Your task to perform on an android device: Open privacy settings Image 0: 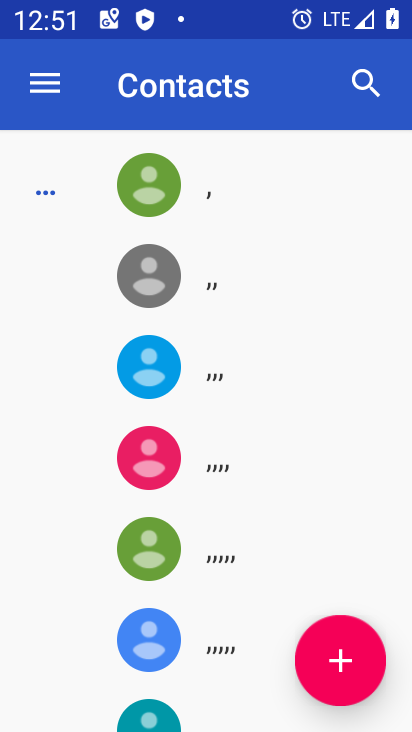
Step 0: press home button
Your task to perform on an android device: Open privacy settings Image 1: 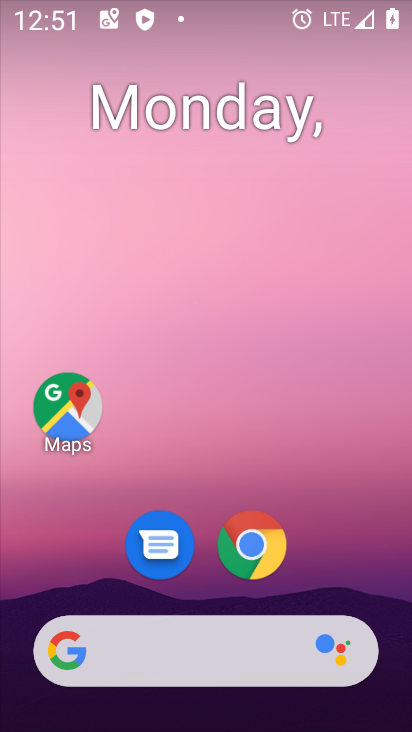
Step 1: drag from (370, 560) to (384, 219)
Your task to perform on an android device: Open privacy settings Image 2: 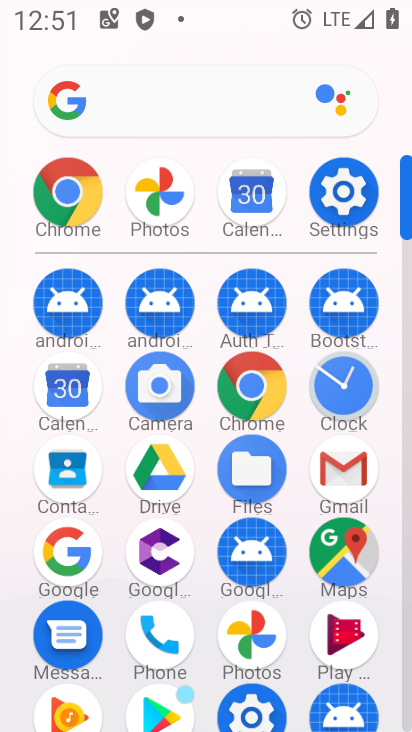
Step 2: click (358, 215)
Your task to perform on an android device: Open privacy settings Image 3: 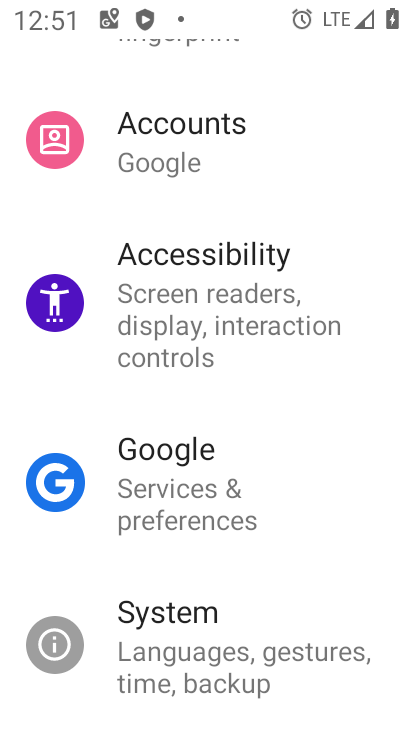
Step 3: drag from (343, 495) to (344, 370)
Your task to perform on an android device: Open privacy settings Image 4: 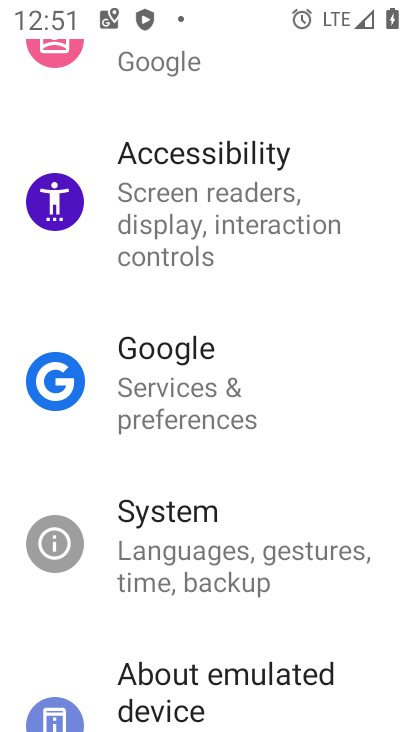
Step 4: drag from (329, 533) to (326, 391)
Your task to perform on an android device: Open privacy settings Image 5: 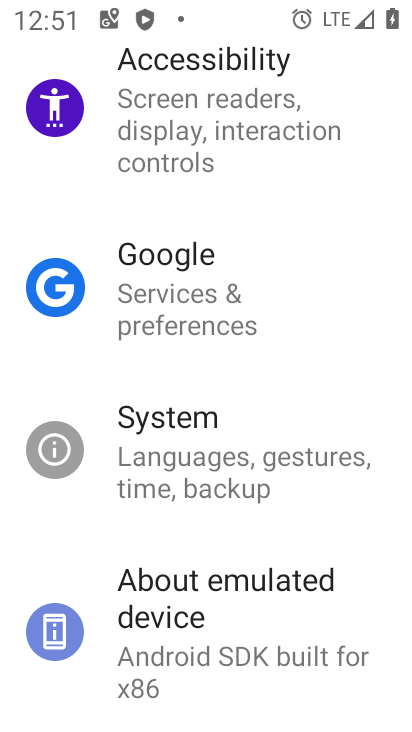
Step 5: drag from (322, 544) to (326, 382)
Your task to perform on an android device: Open privacy settings Image 6: 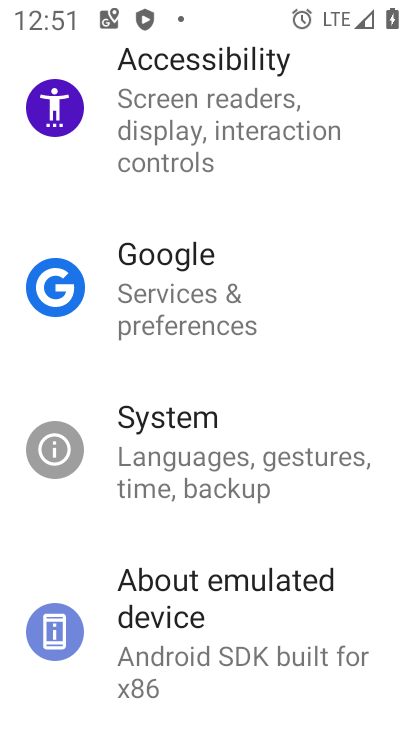
Step 6: drag from (332, 296) to (330, 383)
Your task to perform on an android device: Open privacy settings Image 7: 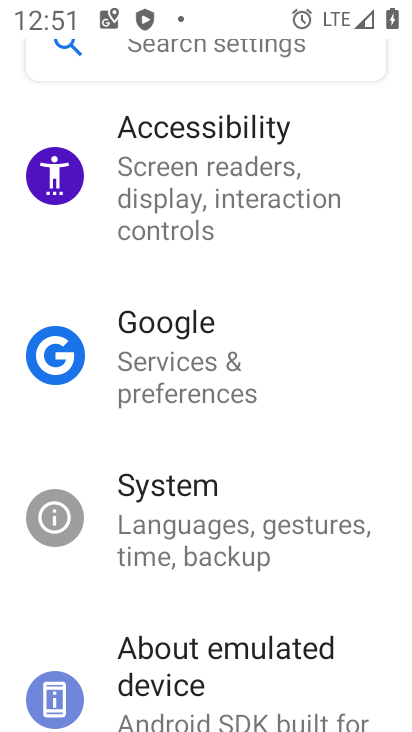
Step 7: drag from (322, 303) to (323, 374)
Your task to perform on an android device: Open privacy settings Image 8: 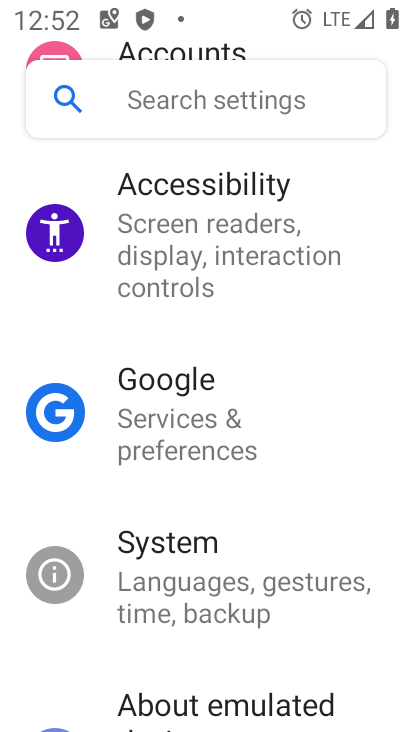
Step 8: drag from (328, 399) to (337, 494)
Your task to perform on an android device: Open privacy settings Image 9: 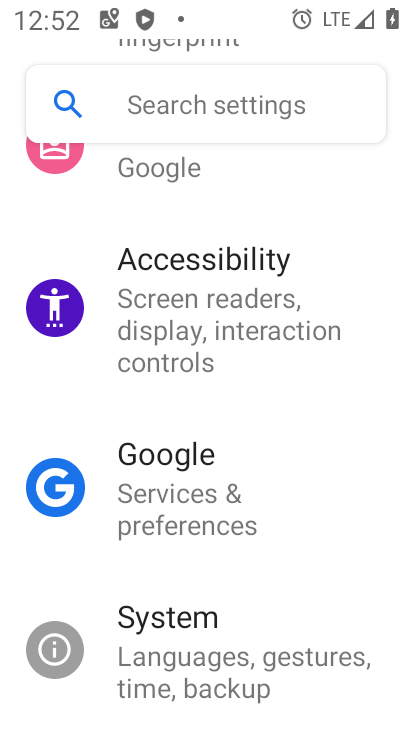
Step 9: drag from (366, 272) to (372, 389)
Your task to perform on an android device: Open privacy settings Image 10: 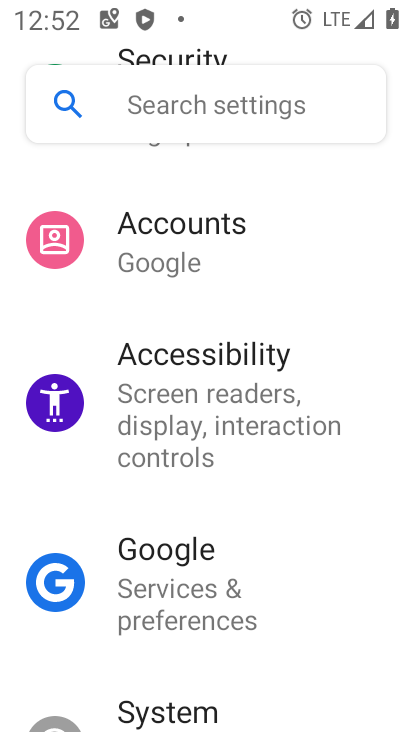
Step 10: drag from (374, 340) to (375, 410)
Your task to perform on an android device: Open privacy settings Image 11: 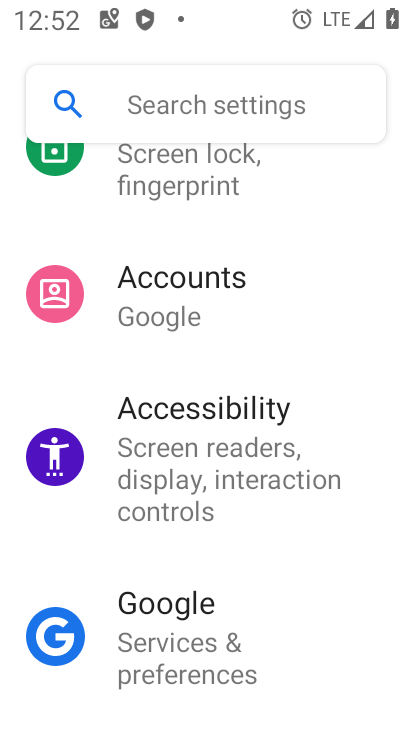
Step 11: drag from (355, 261) to (352, 359)
Your task to perform on an android device: Open privacy settings Image 12: 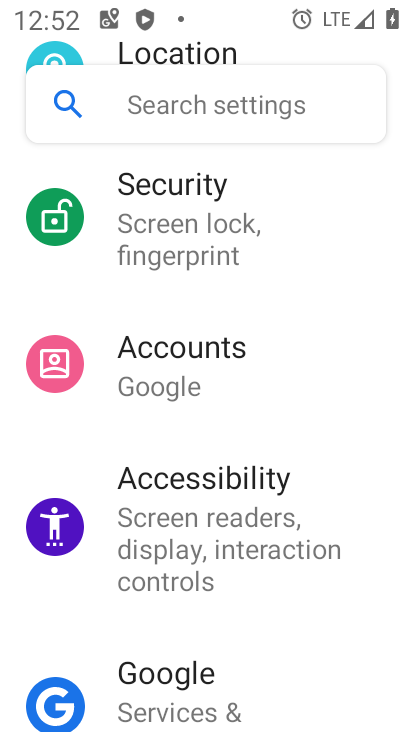
Step 12: drag from (363, 230) to (347, 416)
Your task to perform on an android device: Open privacy settings Image 13: 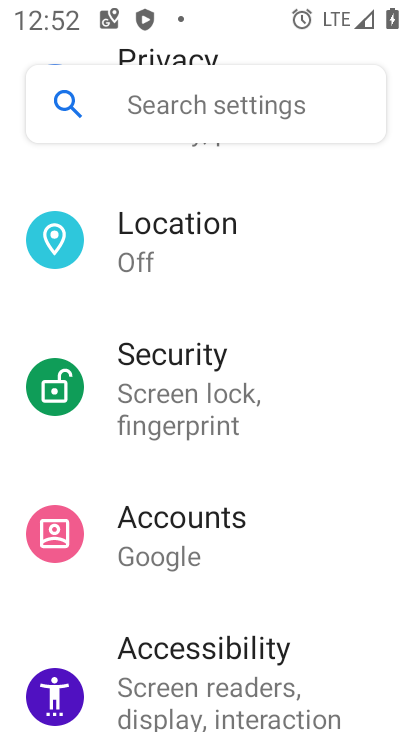
Step 13: drag from (337, 215) to (349, 363)
Your task to perform on an android device: Open privacy settings Image 14: 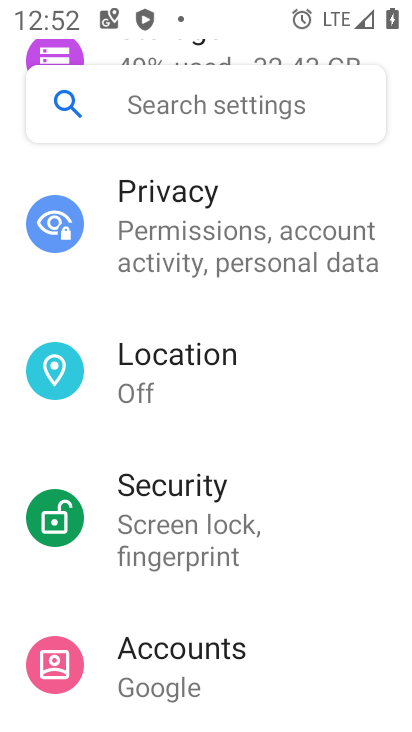
Step 14: drag from (332, 185) to (344, 454)
Your task to perform on an android device: Open privacy settings Image 15: 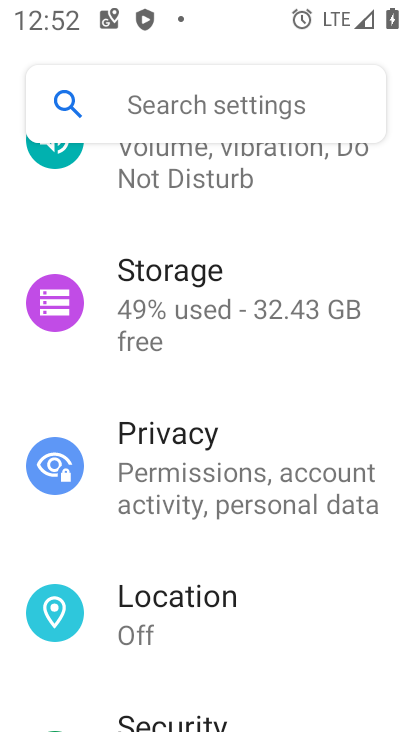
Step 15: click (243, 448)
Your task to perform on an android device: Open privacy settings Image 16: 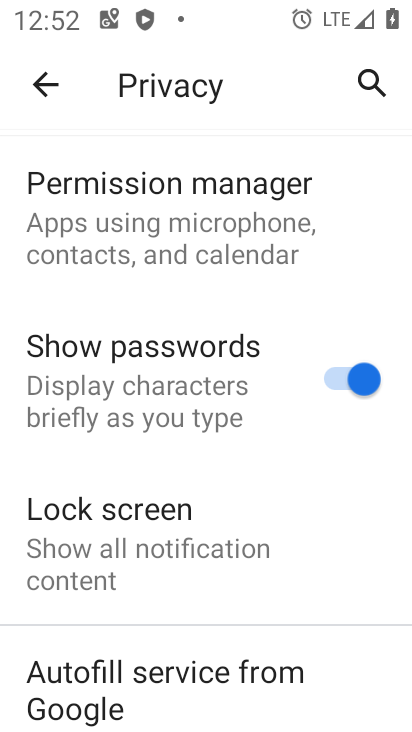
Step 16: task complete